Your task to perform on an android device: Go to Yahoo.com Image 0: 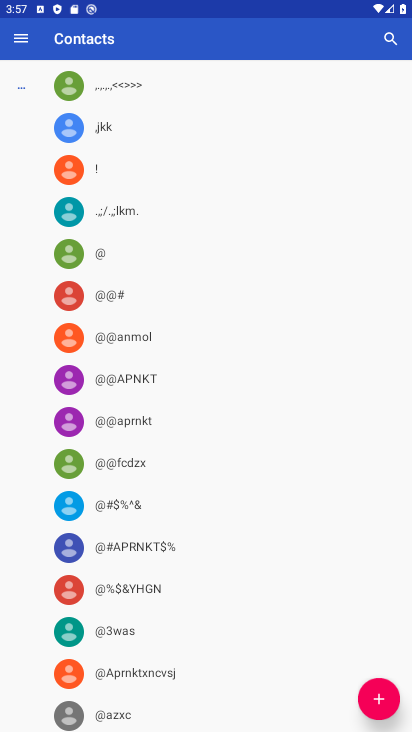
Step 0: press home button
Your task to perform on an android device: Go to Yahoo.com Image 1: 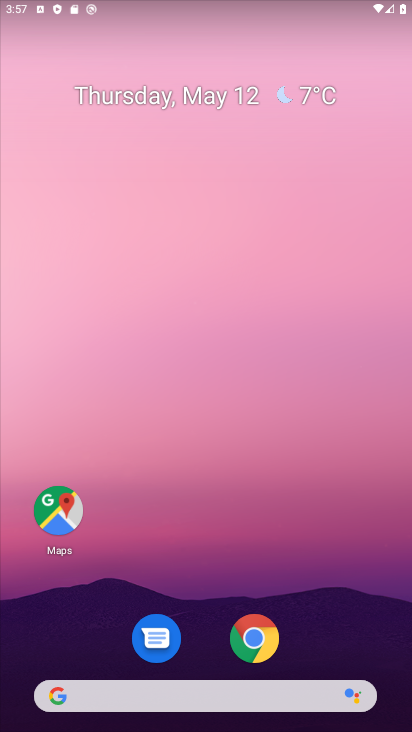
Step 1: click (255, 634)
Your task to perform on an android device: Go to Yahoo.com Image 2: 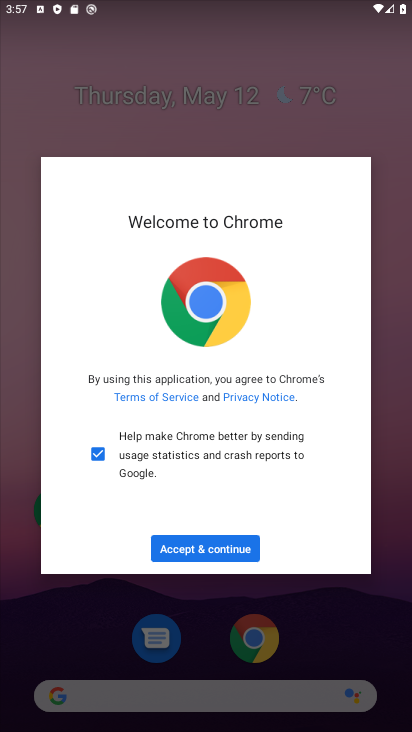
Step 2: click (219, 550)
Your task to perform on an android device: Go to Yahoo.com Image 3: 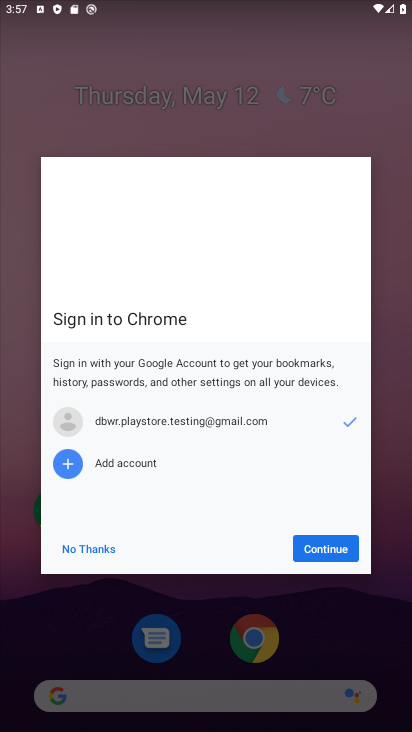
Step 3: click (338, 548)
Your task to perform on an android device: Go to Yahoo.com Image 4: 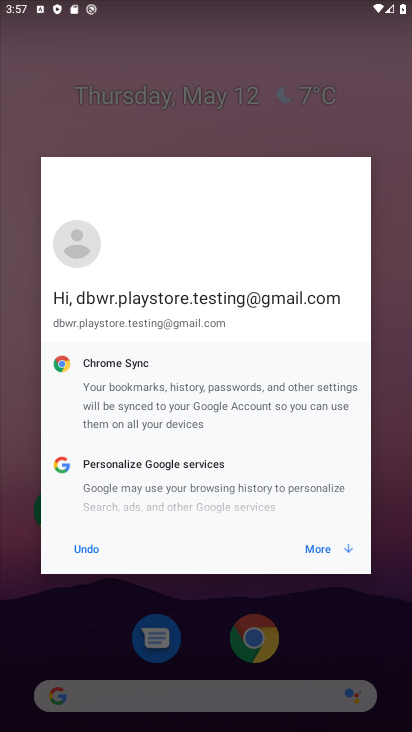
Step 4: click (338, 546)
Your task to perform on an android device: Go to Yahoo.com Image 5: 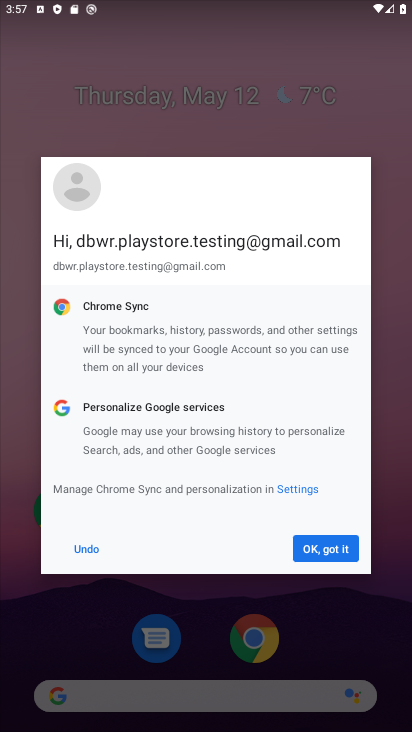
Step 5: click (338, 546)
Your task to perform on an android device: Go to Yahoo.com Image 6: 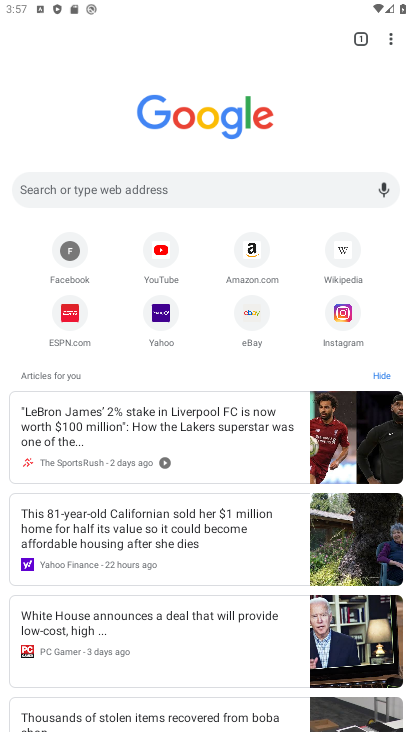
Step 6: click (161, 315)
Your task to perform on an android device: Go to Yahoo.com Image 7: 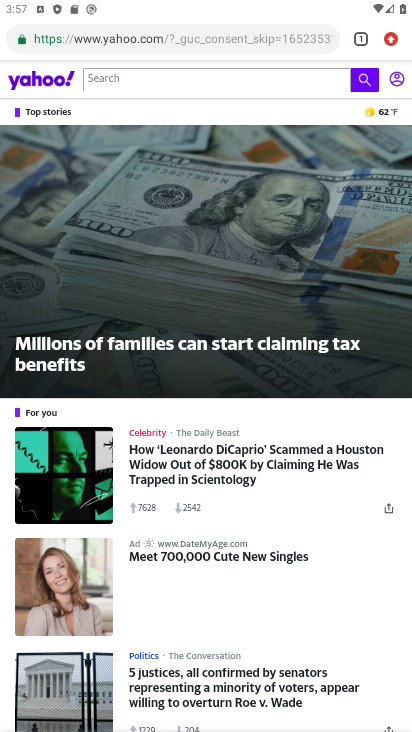
Step 7: task complete